Your task to perform on an android device: Open the calendar app, open the side menu, and click the "Day" option Image 0: 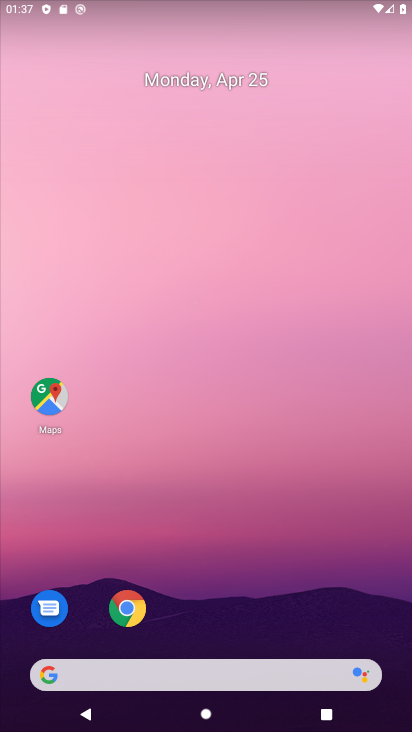
Step 0: drag from (201, 620) to (320, 11)
Your task to perform on an android device: Open the calendar app, open the side menu, and click the "Day" option Image 1: 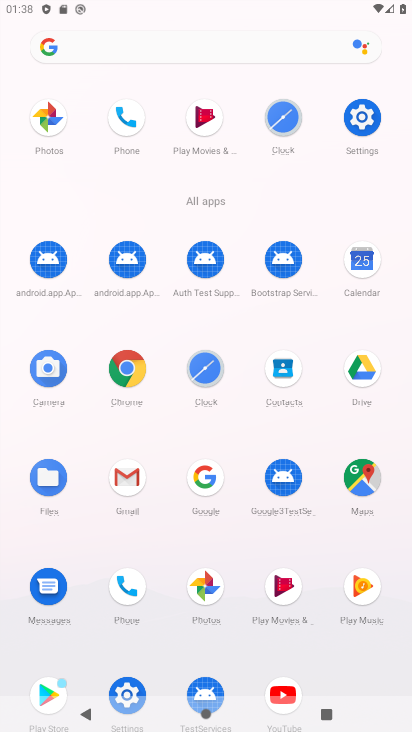
Step 1: click (349, 268)
Your task to perform on an android device: Open the calendar app, open the side menu, and click the "Day" option Image 2: 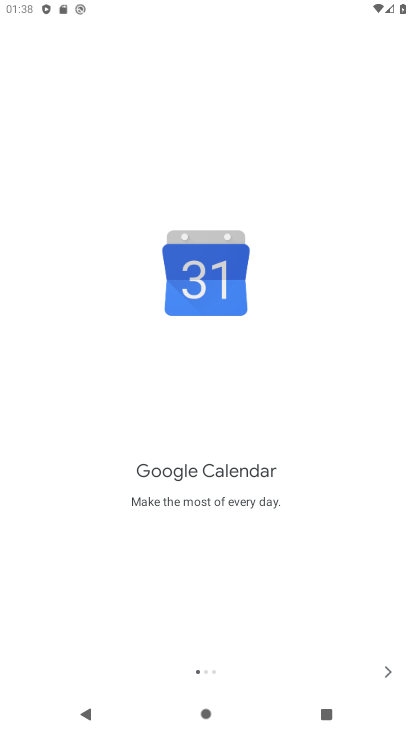
Step 2: click (385, 673)
Your task to perform on an android device: Open the calendar app, open the side menu, and click the "Day" option Image 3: 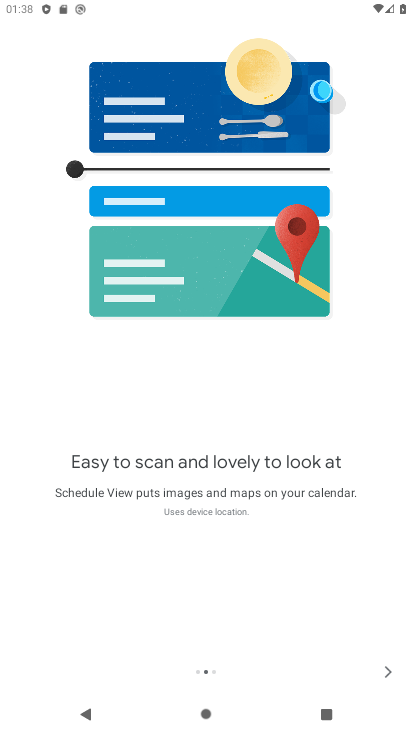
Step 3: click (385, 673)
Your task to perform on an android device: Open the calendar app, open the side menu, and click the "Day" option Image 4: 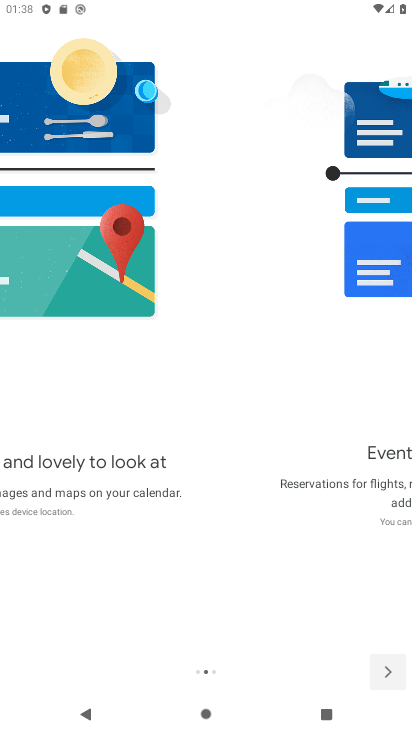
Step 4: click (385, 673)
Your task to perform on an android device: Open the calendar app, open the side menu, and click the "Day" option Image 5: 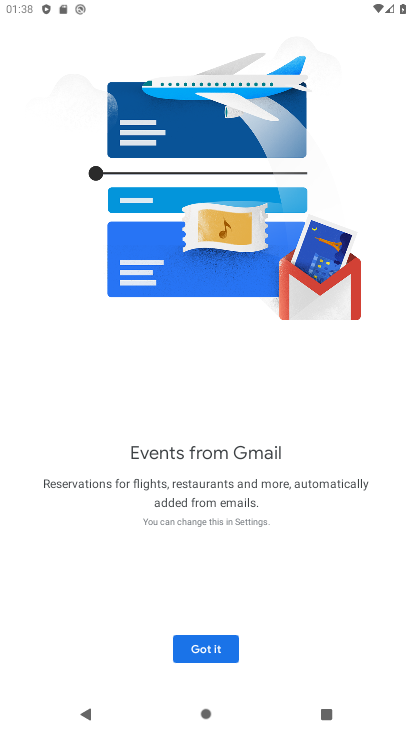
Step 5: click (208, 646)
Your task to perform on an android device: Open the calendar app, open the side menu, and click the "Day" option Image 6: 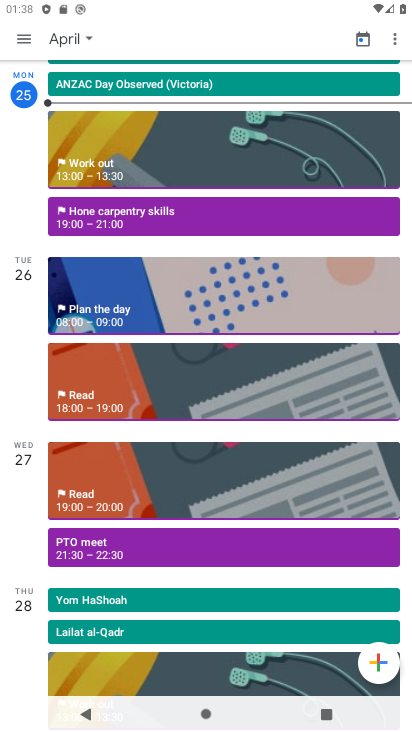
Step 6: click (17, 41)
Your task to perform on an android device: Open the calendar app, open the side menu, and click the "Day" option Image 7: 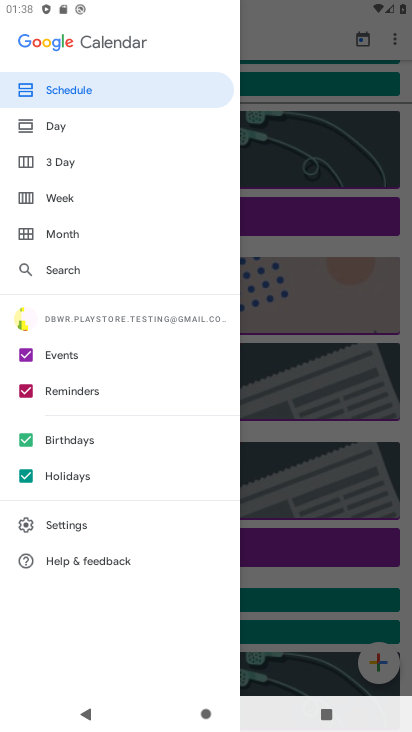
Step 7: click (47, 125)
Your task to perform on an android device: Open the calendar app, open the side menu, and click the "Day" option Image 8: 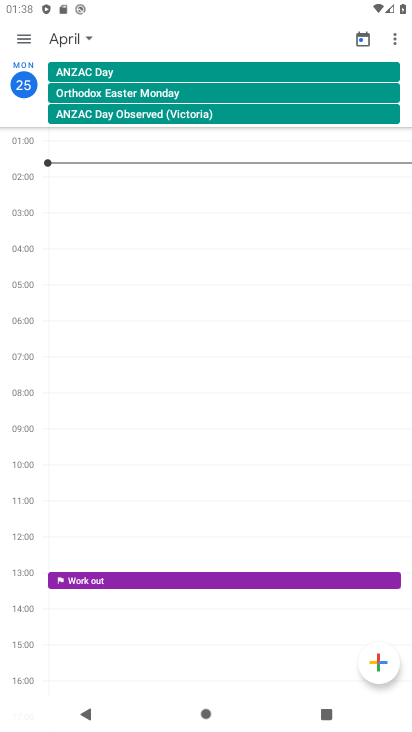
Step 8: task complete